Your task to perform on an android device: Open settings Image 0: 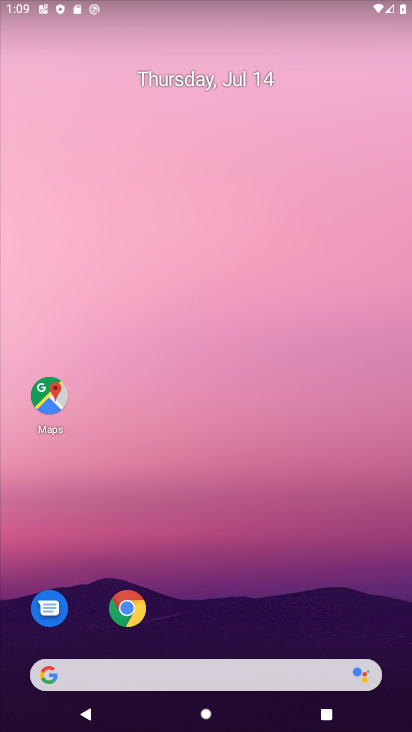
Step 0: drag from (398, 647) to (362, 59)
Your task to perform on an android device: Open settings Image 1: 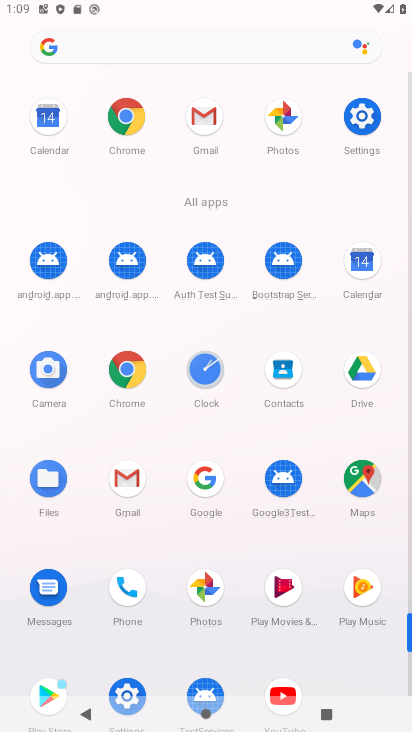
Step 1: click (124, 690)
Your task to perform on an android device: Open settings Image 2: 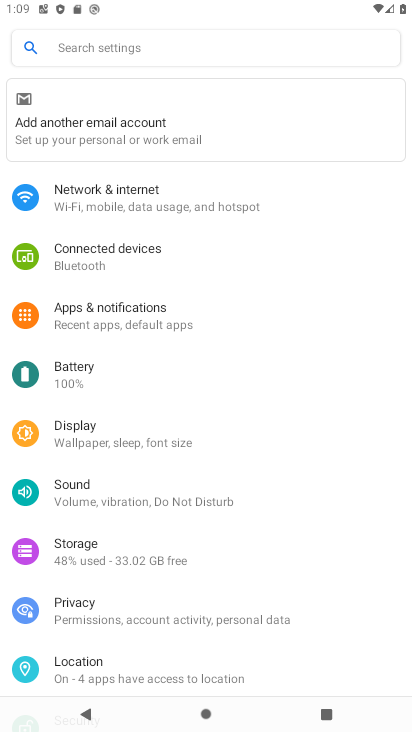
Step 2: task complete